Your task to perform on an android device: find snoozed emails in the gmail app Image 0: 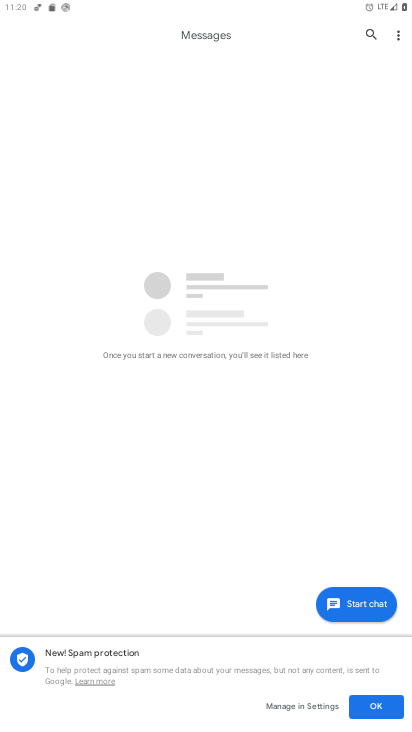
Step 0: press home button
Your task to perform on an android device: find snoozed emails in the gmail app Image 1: 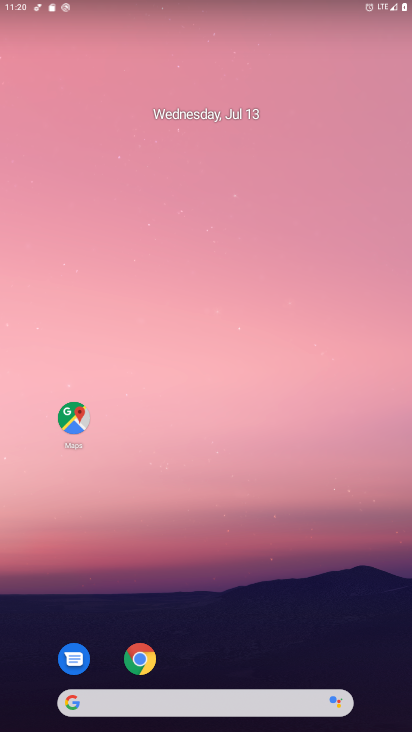
Step 1: drag from (211, 673) to (236, 83)
Your task to perform on an android device: find snoozed emails in the gmail app Image 2: 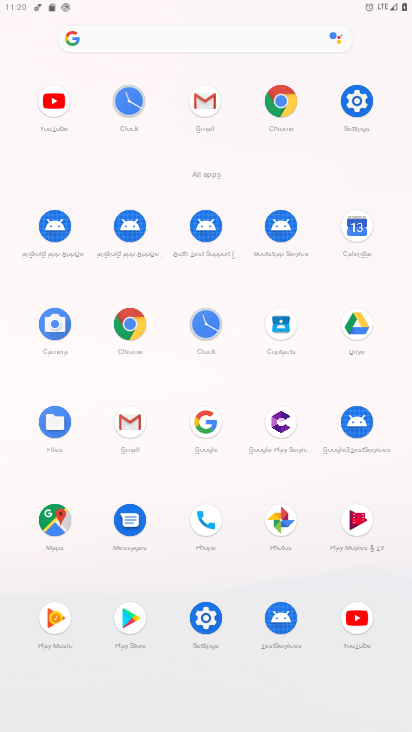
Step 2: click (127, 414)
Your task to perform on an android device: find snoozed emails in the gmail app Image 3: 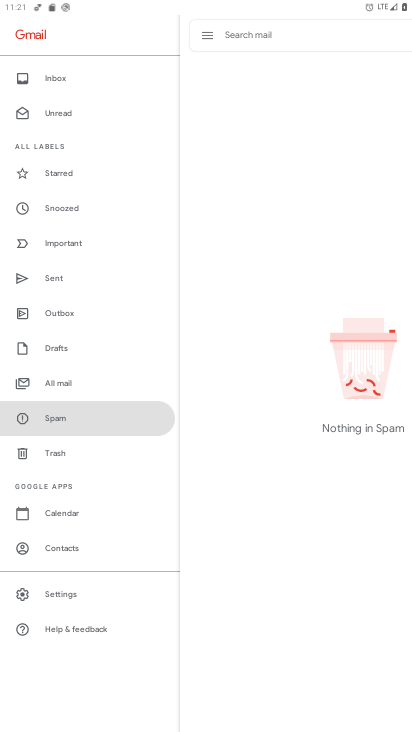
Step 3: click (86, 206)
Your task to perform on an android device: find snoozed emails in the gmail app Image 4: 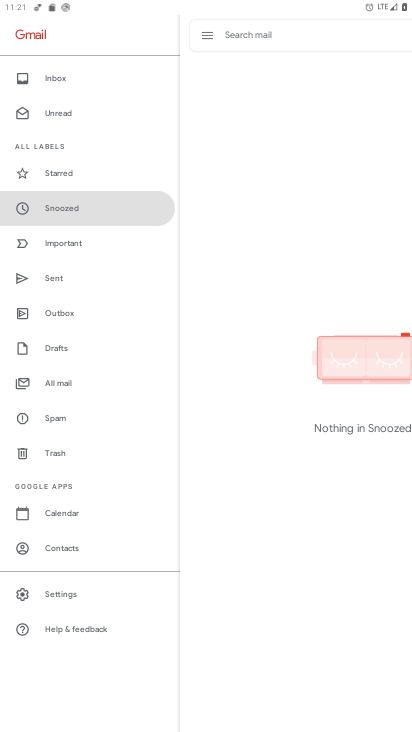
Step 4: task complete